Your task to perform on an android device: snooze an email in the gmail app Image 0: 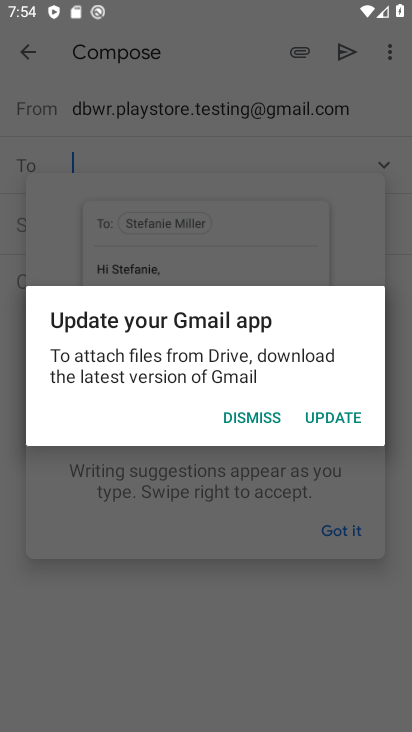
Step 0: press back button
Your task to perform on an android device: snooze an email in the gmail app Image 1: 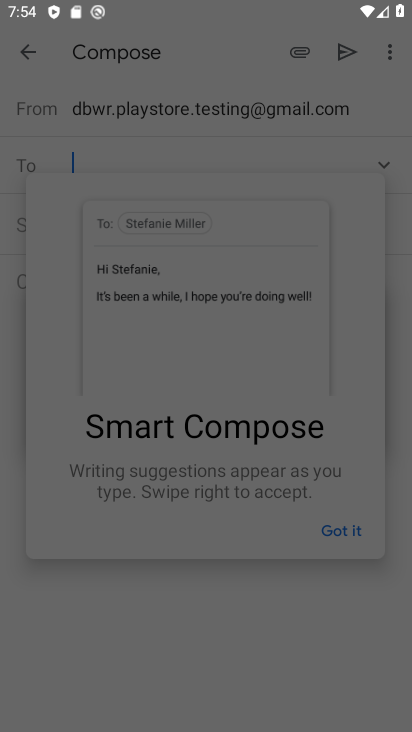
Step 1: press home button
Your task to perform on an android device: snooze an email in the gmail app Image 2: 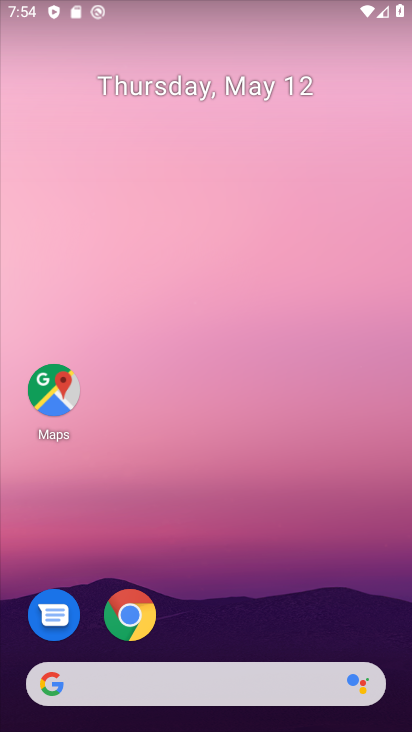
Step 2: drag from (226, 598) to (211, 37)
Your task to perform on an android device: snooze an email in the gmail app Image 3: 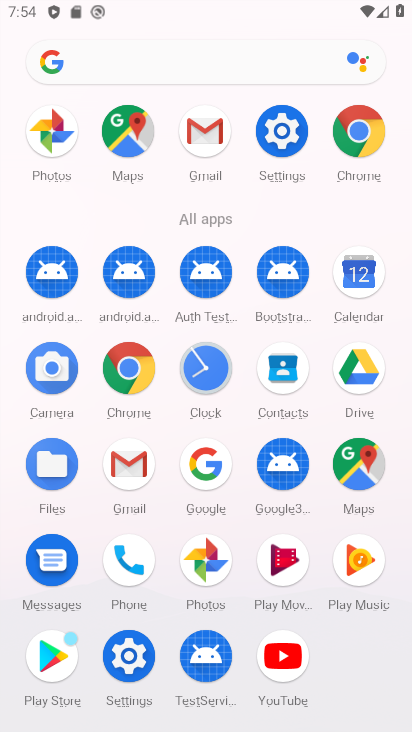
Step 3: click (125, 461)
Your task to perform on an android device: snooze an email in the gmail app Image 4: 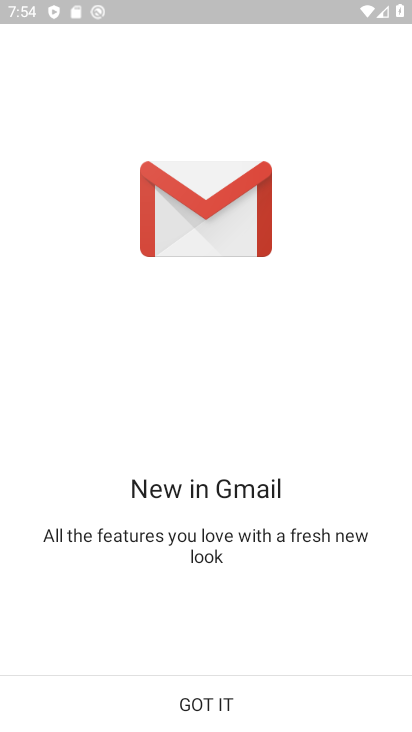
Step 4: click (204, 695)
Your task to perform on an android device: snooze an email in the gmail app Image 5: 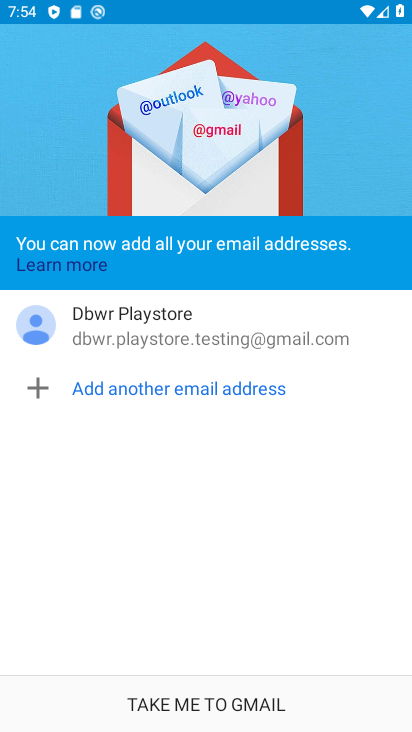
Step 5: click (203, 696)
Your task to perform on an android device: snooze an email in the gmail app Image 6: 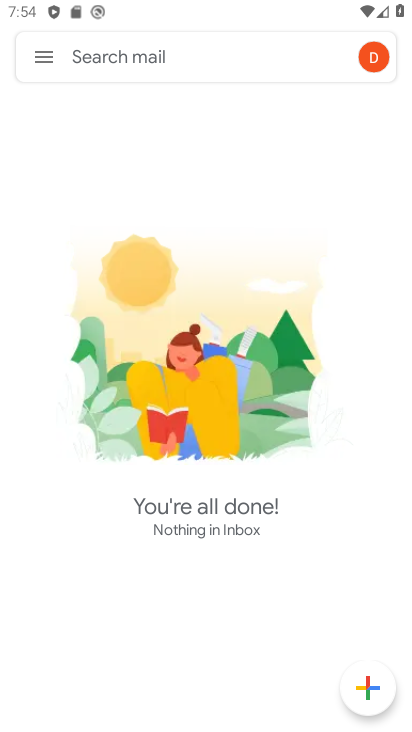
Step 6: click (49, 48)
Your task to perform on an android device: snooze an email in the gmail app Image 7: 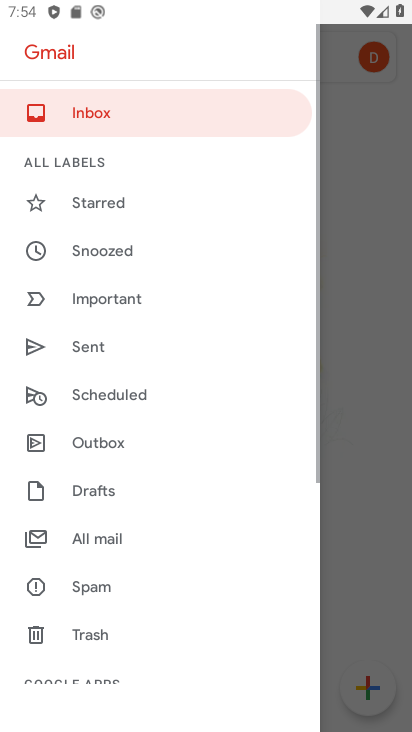
Step 7: drag from (173, 521) to (182, 176)
Your task to perform on an android device: snooze an email in the gmail app Image 8: 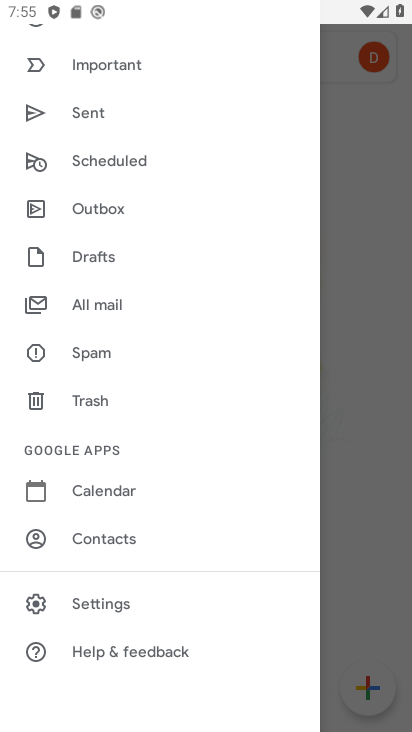
Step 8: drag from (179, 123) to (184, 436)
Your task to perform on an android device: snooze an email in the gmail app Image 9: 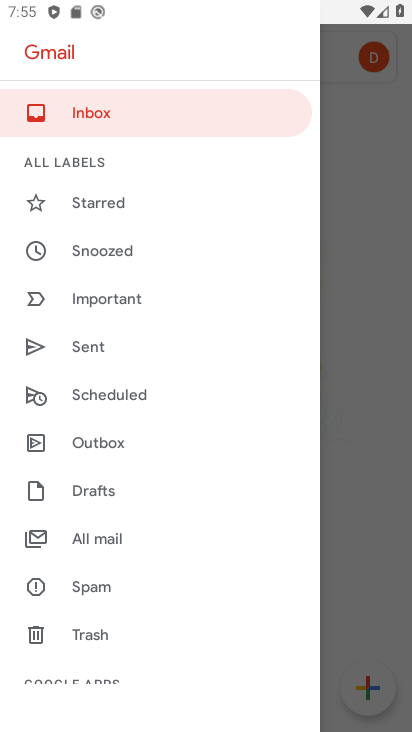
Step 9: click (118, 251)
Your task to perform on an android device: snooze an email in the gmail app Image 10: 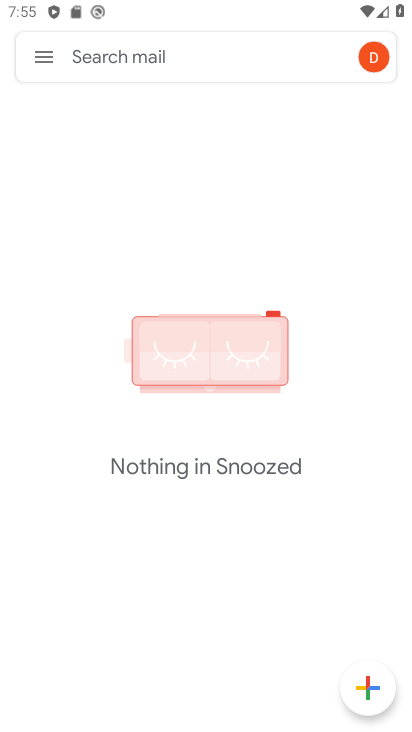
Step 10: task complete